Your task to perform on an android device: Go to network settings Image 0: 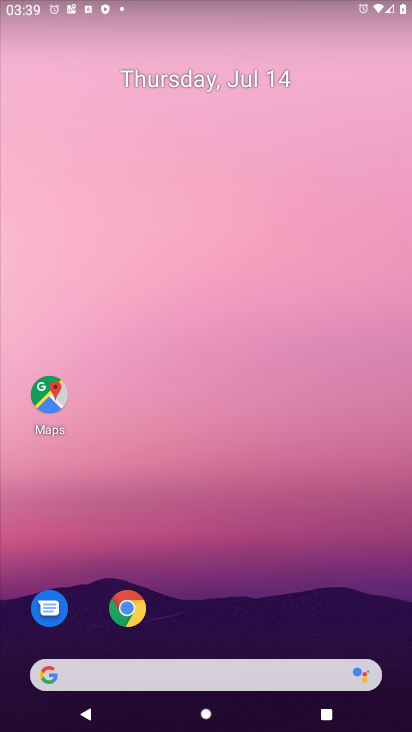
Step 0: drag from (394, 664) to (345, 189)
Your task to perform on an android device: Go to network settings Image 1: 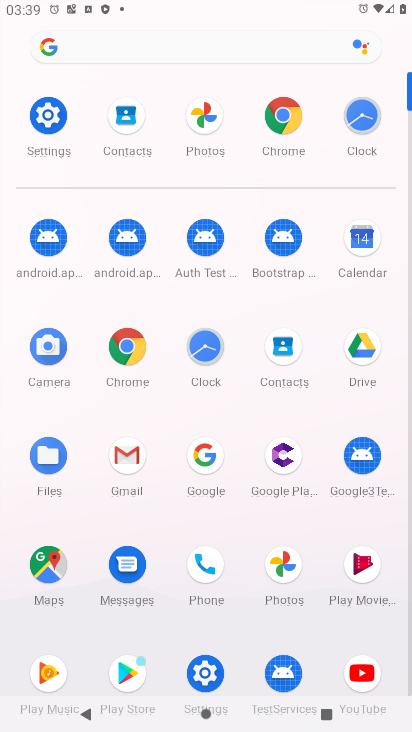
Step 1: click (207, 673)
Your task to perform on an android device: Go to network settings Image 2: 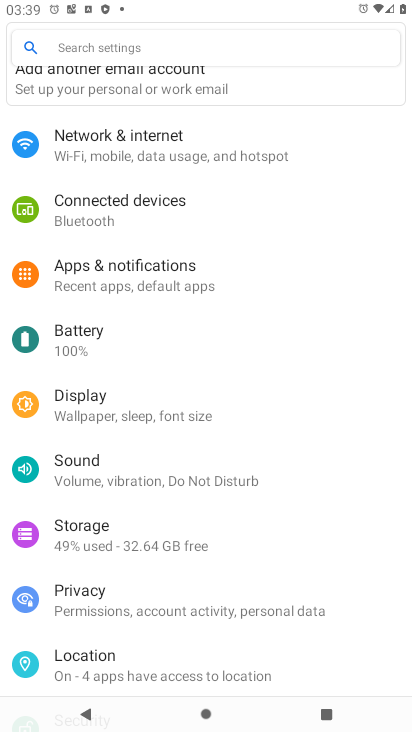
Step 2: click (84, 134)
Your task to perform on an android device: Go to network settings Image 3: 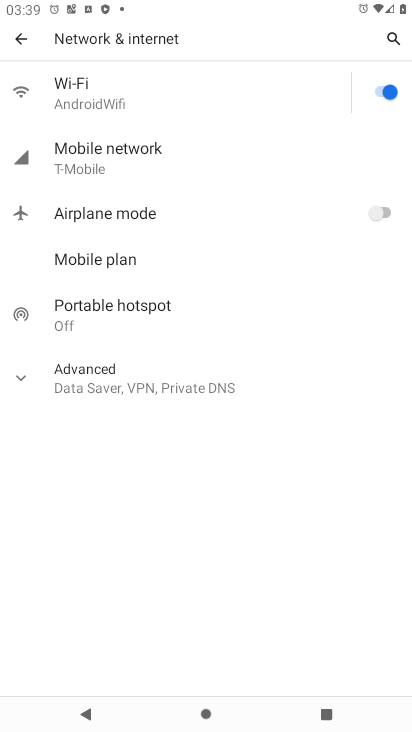
Step 3: click (83, 155)
Your task to perform on an android device: Go to network settings Image 4: 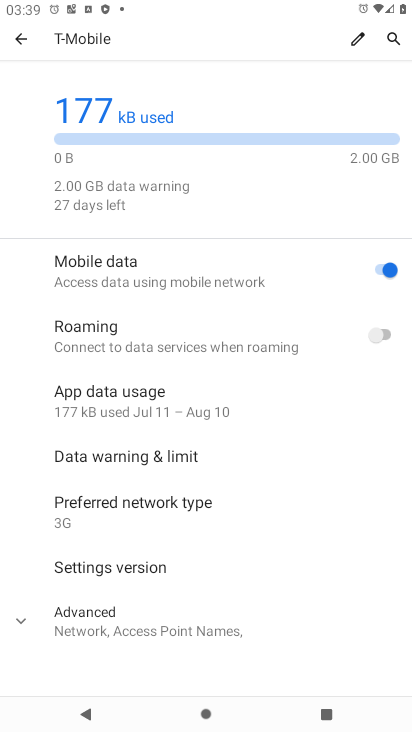
Step 4: click (23, 619)
Your task to perform on an android device: Go to network settings Image 5: 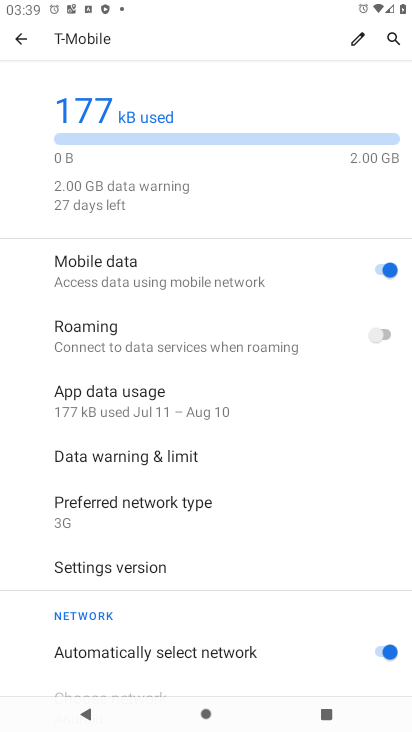
Step 5: task complete